Your task to perform on an android device: check android version Image 0: 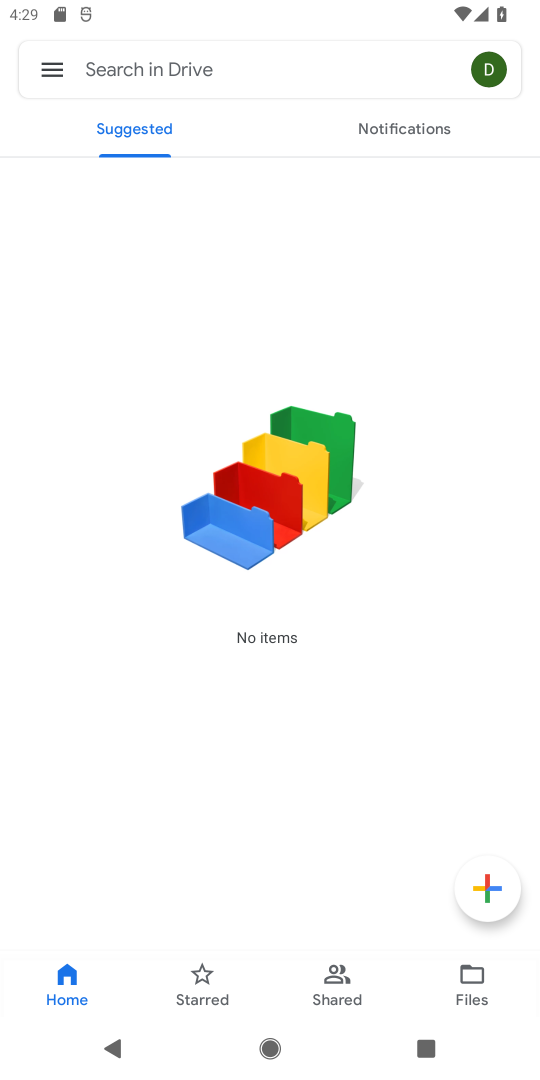
Step 0: press home button
Your task to perform on an android device: check android version Image 1: 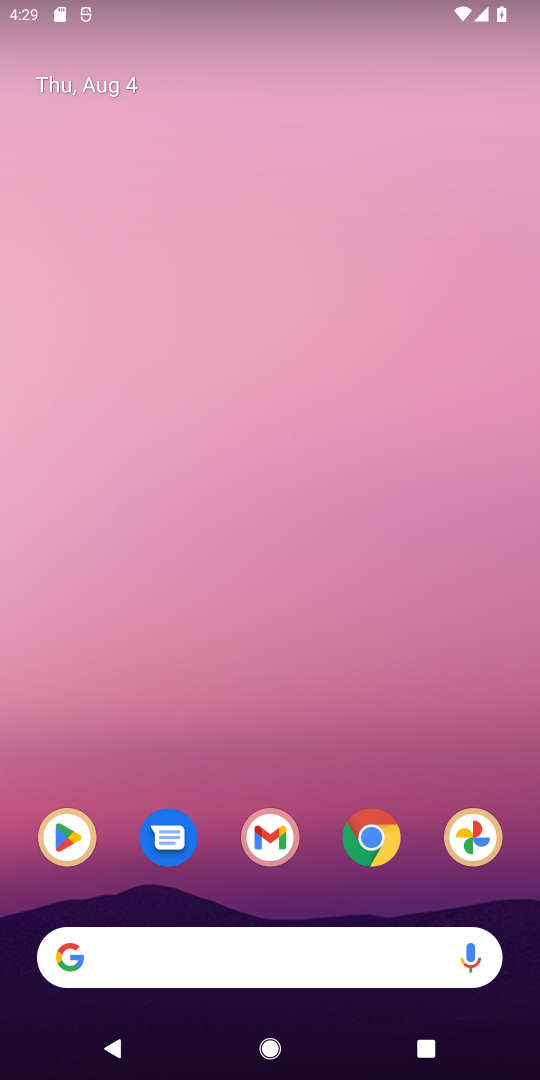
Step 1: drag from (174, 216) to (286, 4)
Your task to perform on an android device: check android version Image 2: 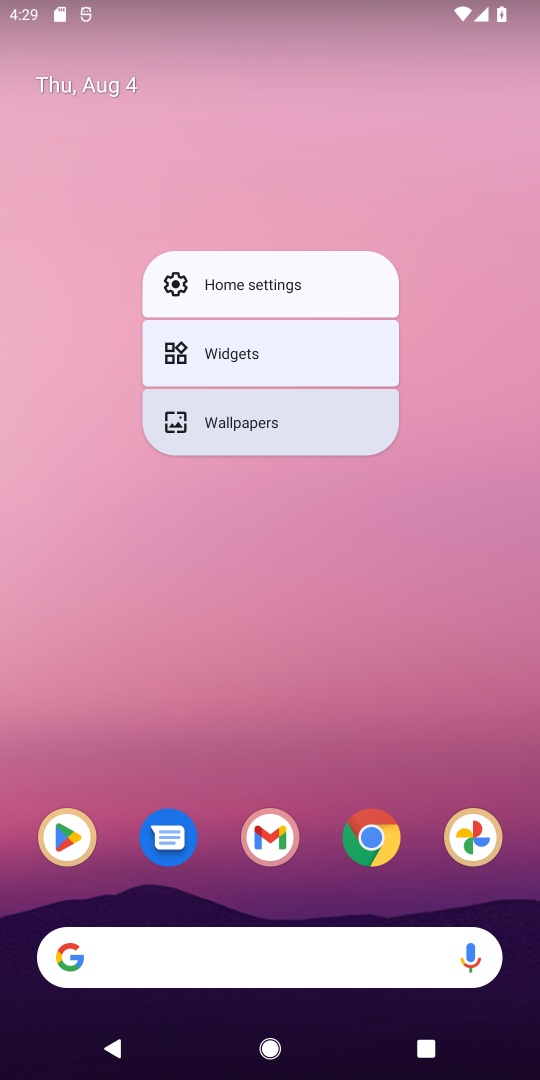
Step 2: click (409, 650)
Your task to perform on an android device: check android version Image 3: 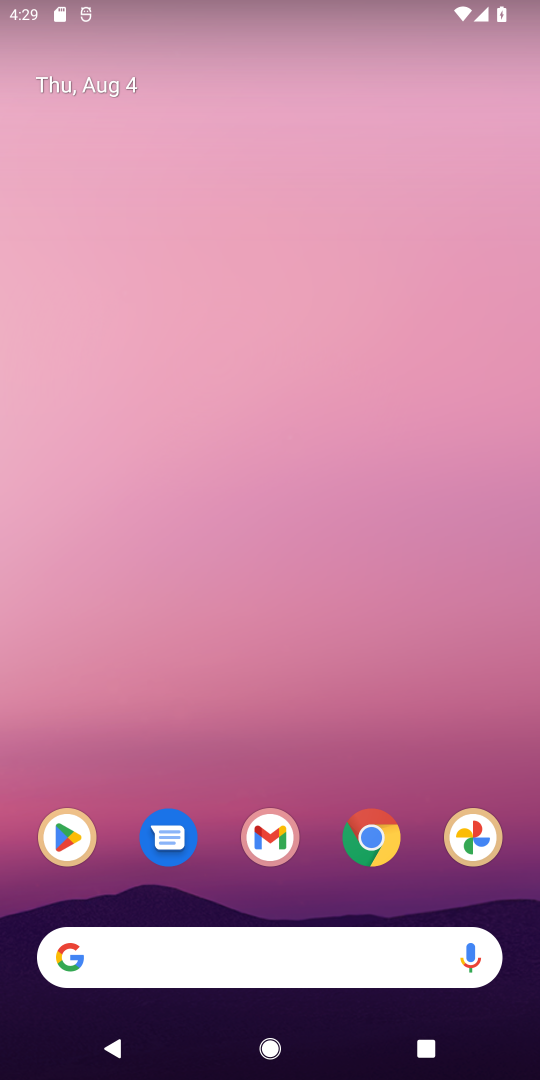
Step 3: drag from (317, 890) to (211, 29)
Your task to perform on an android device: check android version Image 4: 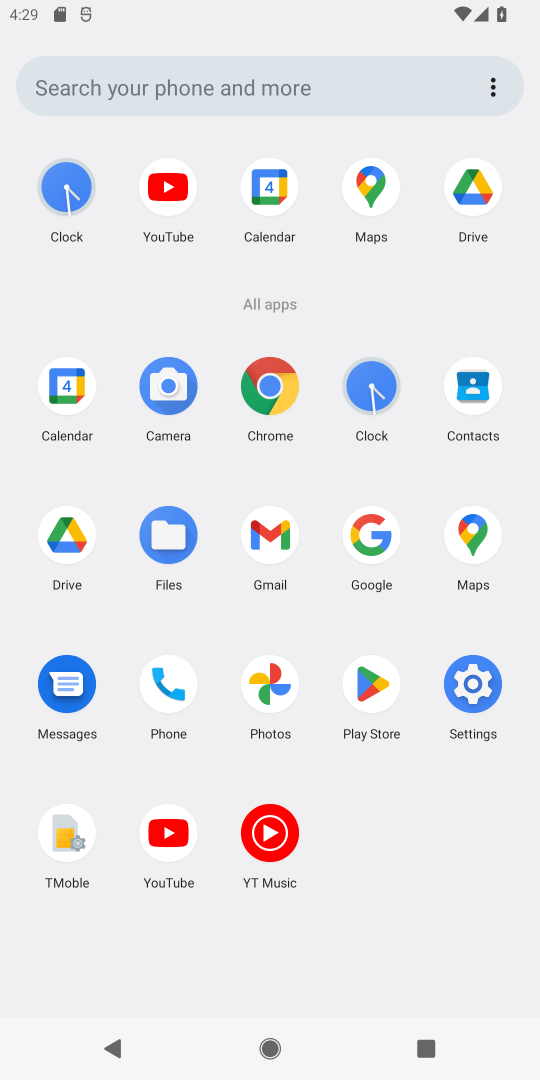
Step 4: click (476, 678)
Your task to perform on an android device: check android version Image 5: 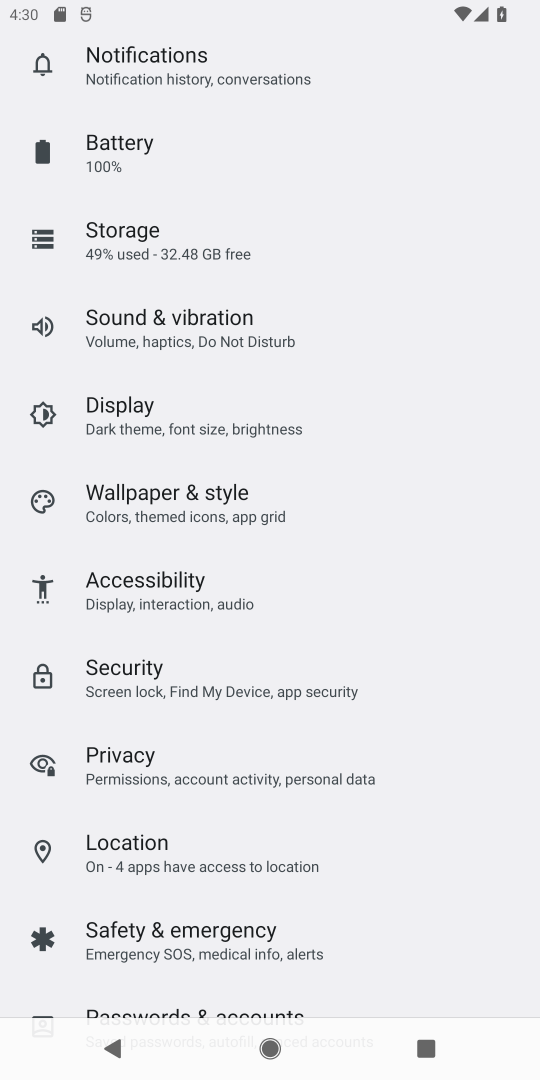
Step 5: drag from (283, 849) to (193, 176)
Your task to perform on an android device: check android version Image 6: 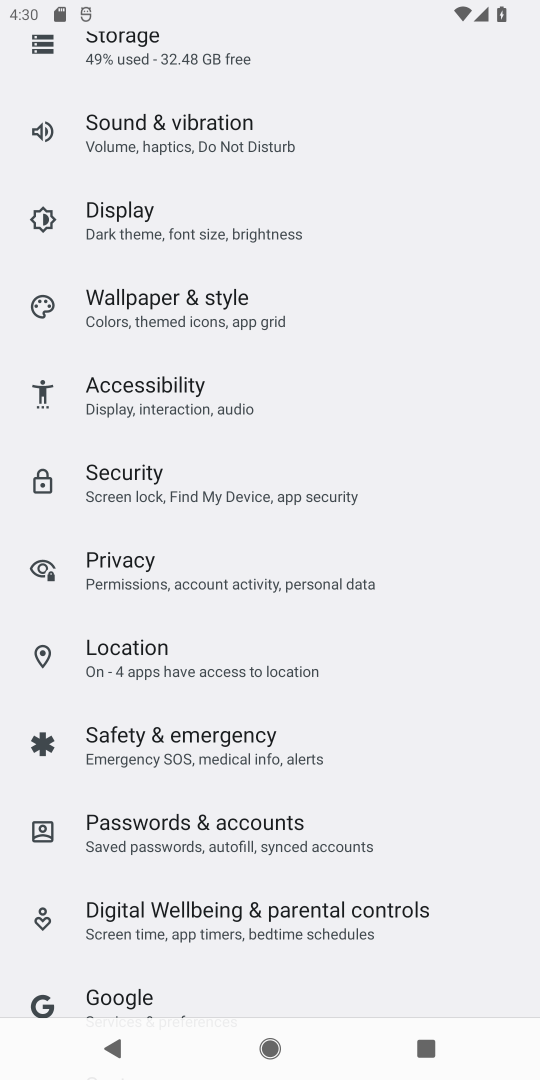
Step 6: drag from (210, 835) to (181, 281)
Your task to perform on an android device: check android version Image 7: 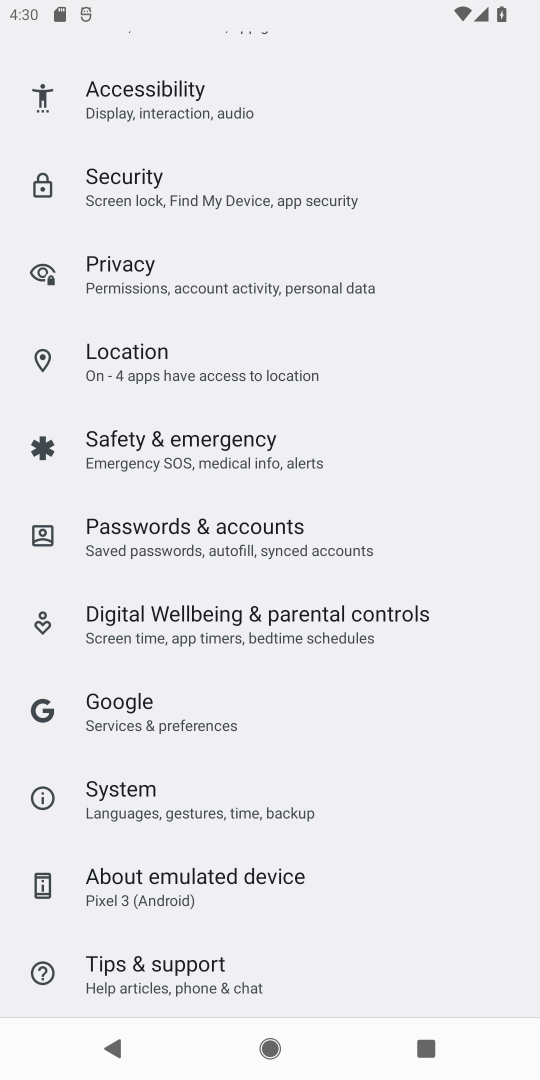
Step 7: click (198, 788)
Your task to perform on an android device: check android version Image 8: 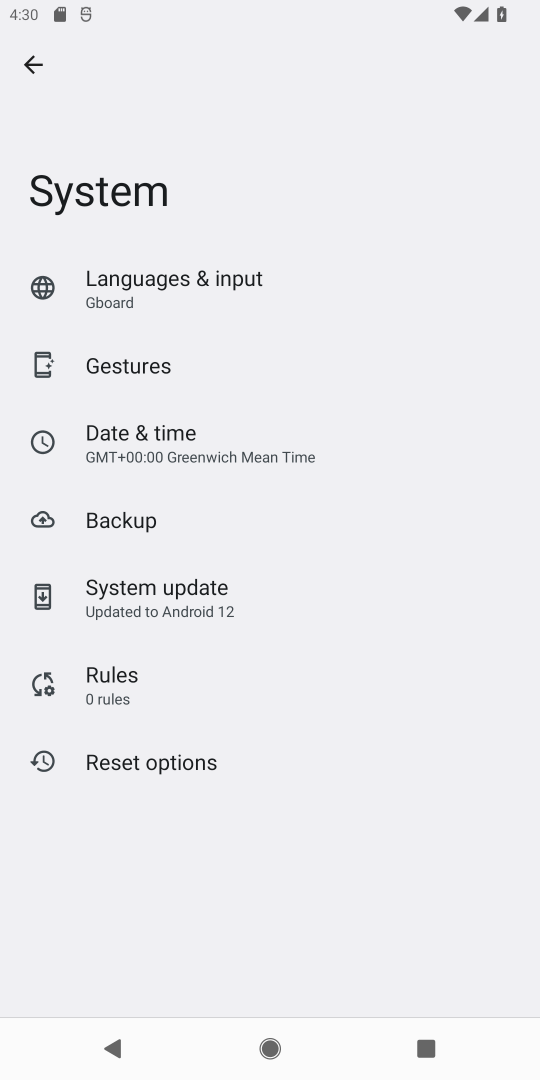
Step 8: task complete